Your task to perform on an android device: Open Google Maps and go to "Timeline" Image 0: 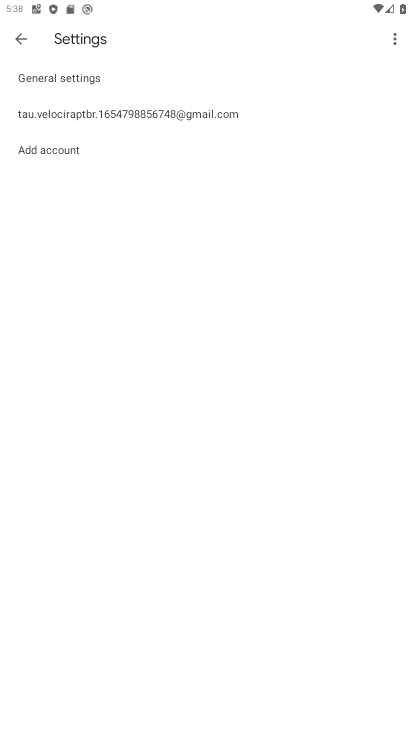
Step 0: press home button
Your task to perform on an android device: Open Google Maps and go to "Timeline" Image 1: 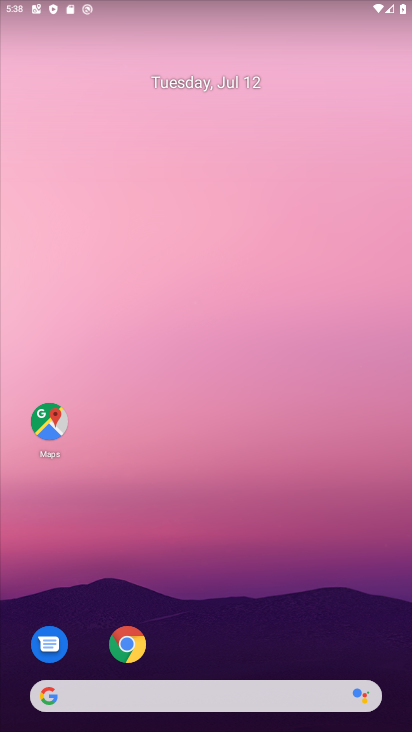
Step 1: click (52, 427)
Your task to perform on an android device: Open Google Maps and go to "Timeline" Image 2: 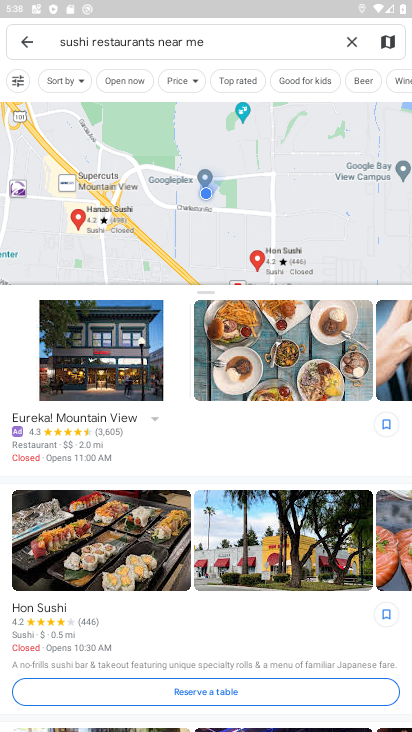
Step 2: click (22, 39)
Your task to perform on an android device: Open Google Maps and go to "Timeline" Image 3: 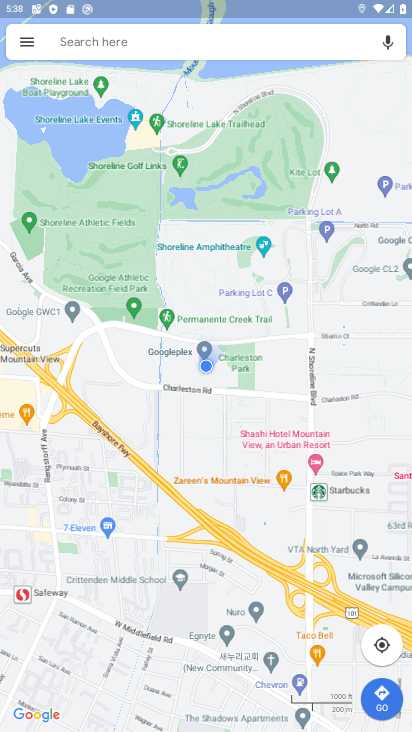
Step 3: click (22, 39)
Your task to perform on an android device: Open Google Maps and go to "Timeline" Image 4: 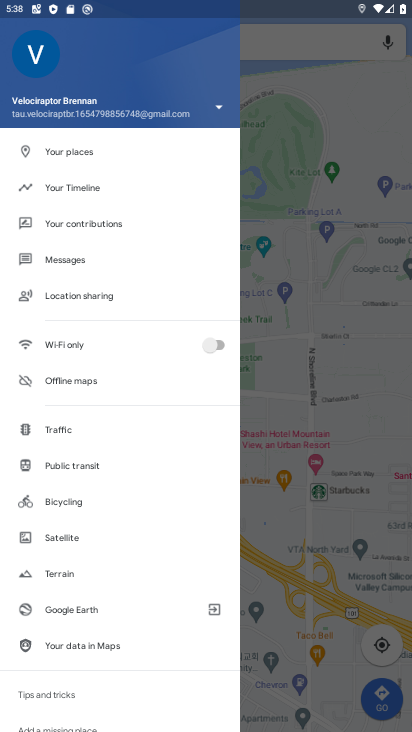
Step 4: click (49, 185)
Your task to perform on an android device: Open Google Maps and go to "Timeline" Image 5: 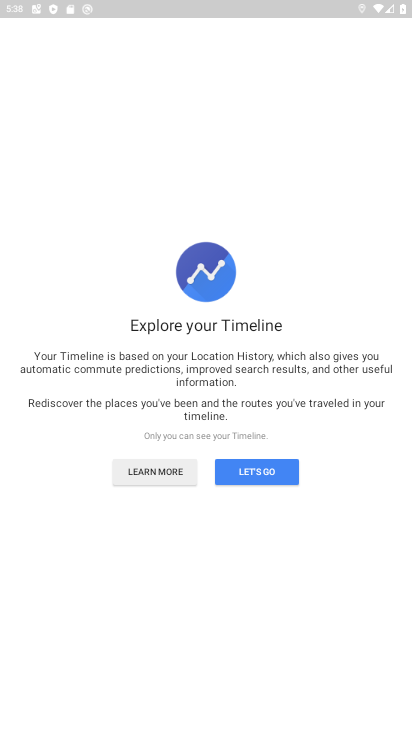
Step 5: click (269, 476)
Your task to perform on an android device: Open Google Maps and go to "Timeline" Image 6: 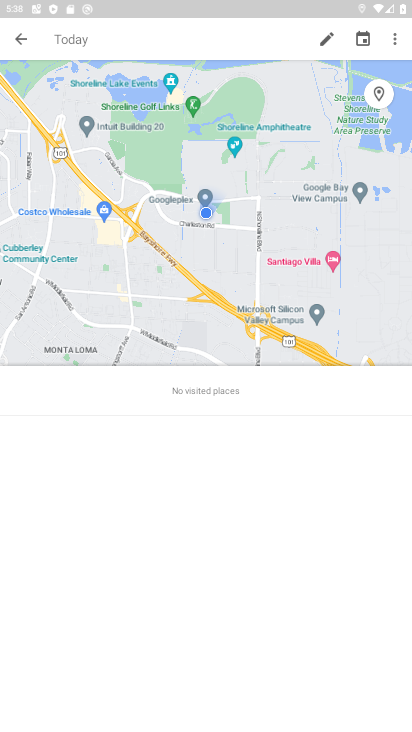
Step 6: task complete